Your task to perform on an android device: turn off picture-in-picture Image 0: 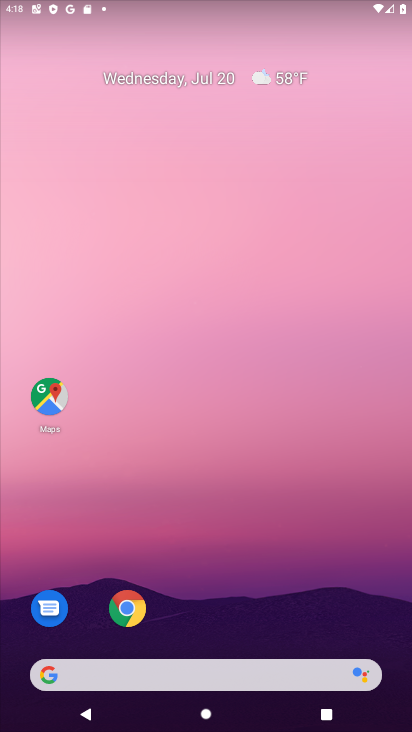
Step 0: click (133, 610)
Your task to perform on an android device: turn off picture-in-picture Image 1: 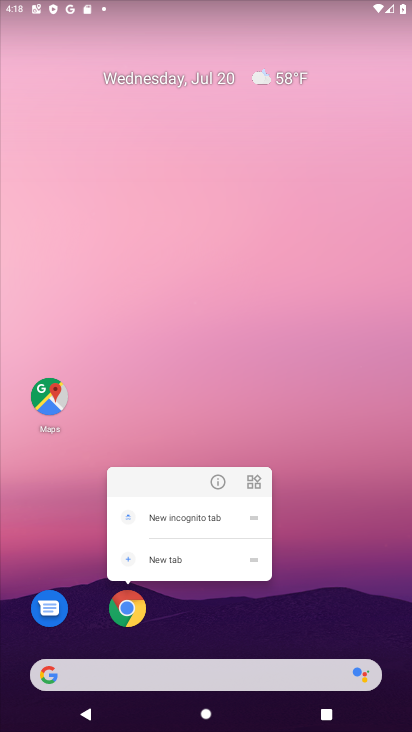
Step 1: click (214, 481)
Your task to perform on an android device: turn off picture-in-picture Image 2: 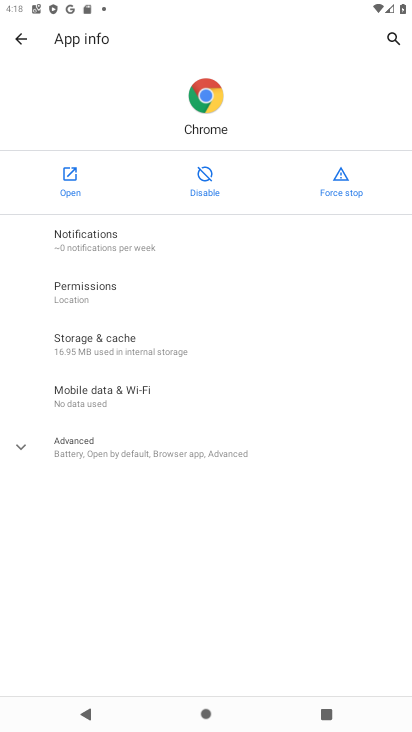
Step 2: click (91, 445)
Your task to perform on an android device: turn off picture-in-picture Image 3: 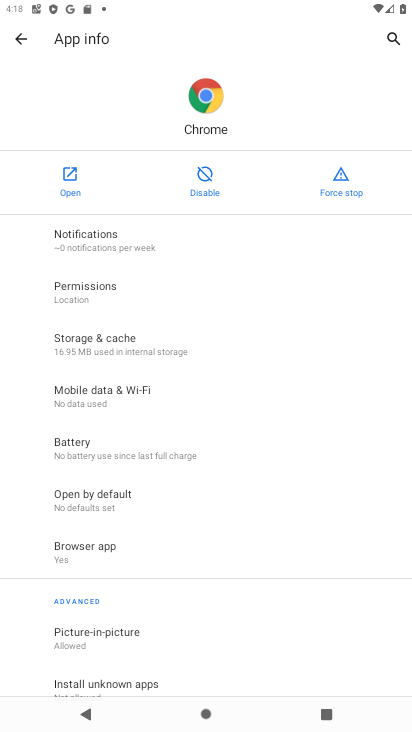
Step 3: click (119, 635)
Your task to perform on an android device: turn off picture-in-picture Image 4: 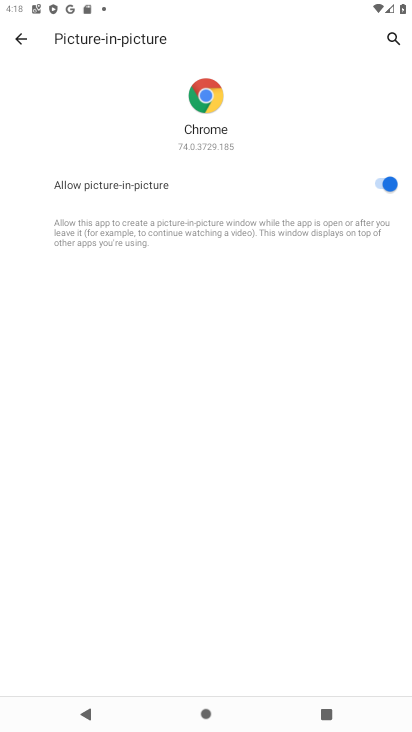
Step 4: click (355, 192)
Your task to perform on an android device: turn off picture-in-picture Image 5: 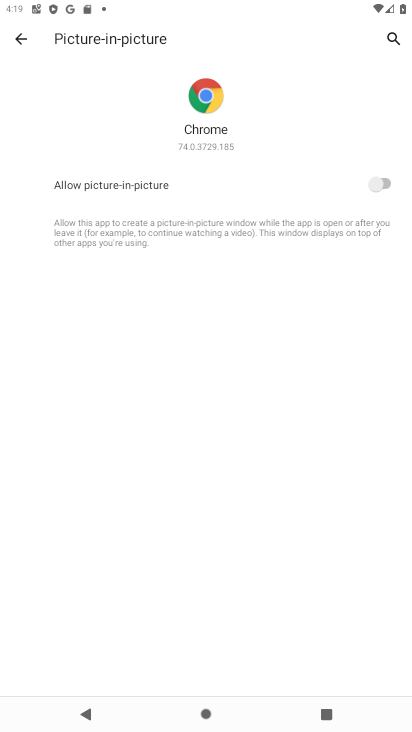
Step 5: task complete